Your task to perform on an android device: Go to sound settings Image 0: 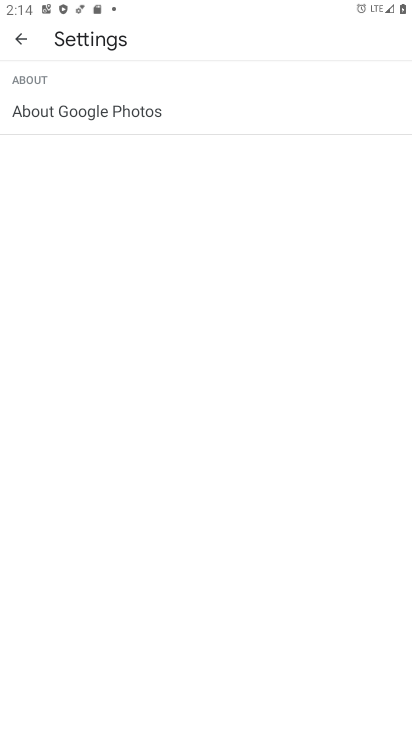
Step 0: press home button
Your task to perform on an android device: Go to sound settings Image 1: 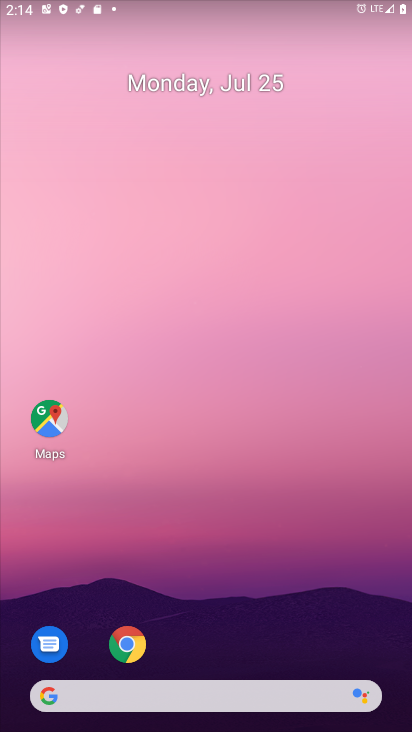
Step 1: drag from (384, 667) to (123, 28)
Your task to perform on an android device: Go to sound settings Image 2: 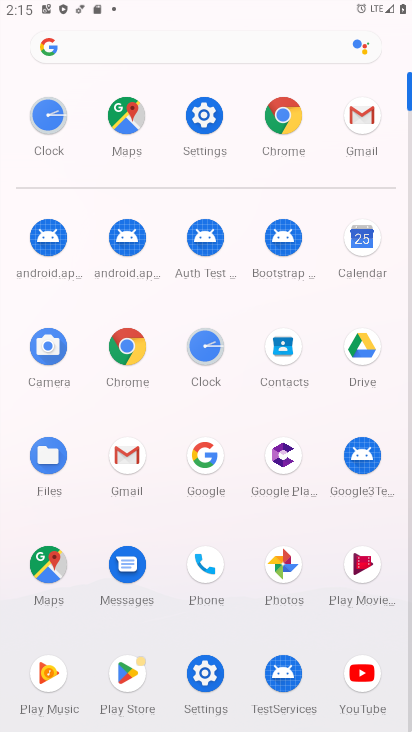
Step 2: click (189, 679)
Your task to perform on an android device: Go to sound settings Image 3: 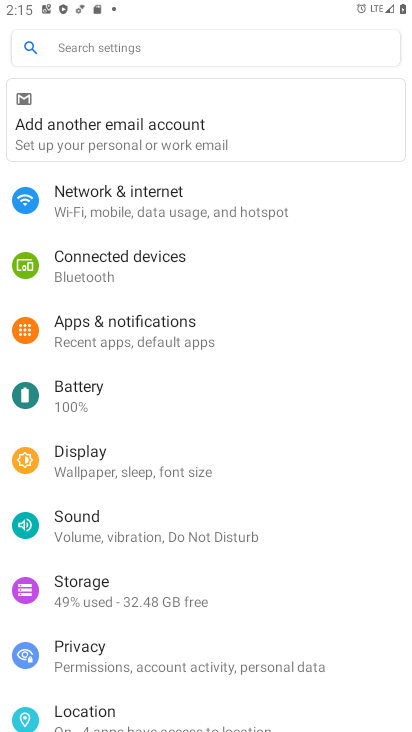
Step 3: click (121, 536)
Your task to perform on an android device: Go to sound settings Image 4: 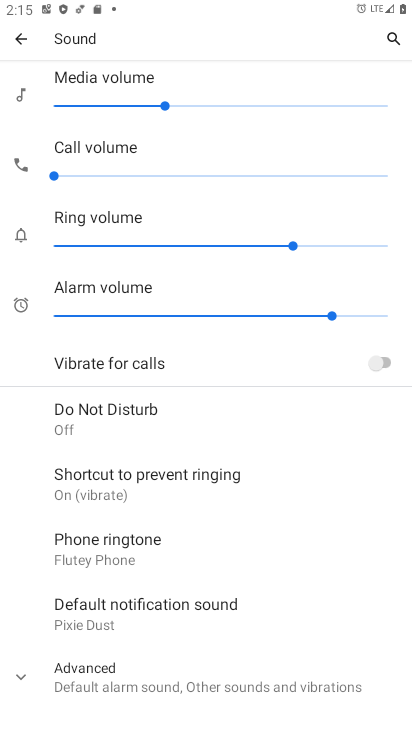
Step 4: task complete